Your task to perform on an android device: Open the calendar and show me this week's events Image 0: 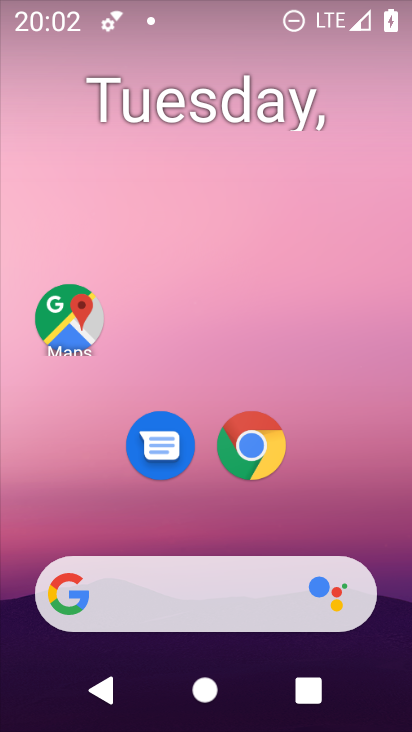
Step 0: drag from (227, 524) to (176, 9)
Your task to perform on an android device: Open the calendar and show me this week's events Image 1: 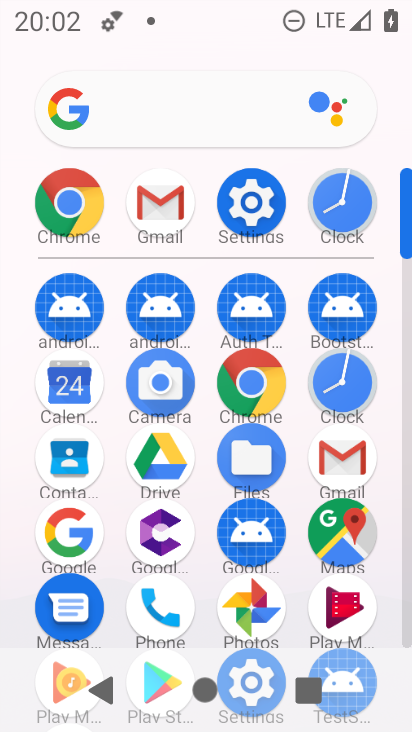
Step 1: click (64, 399)
Your task to perform on an android device: Open the calendar and show me this week's events Image 2: 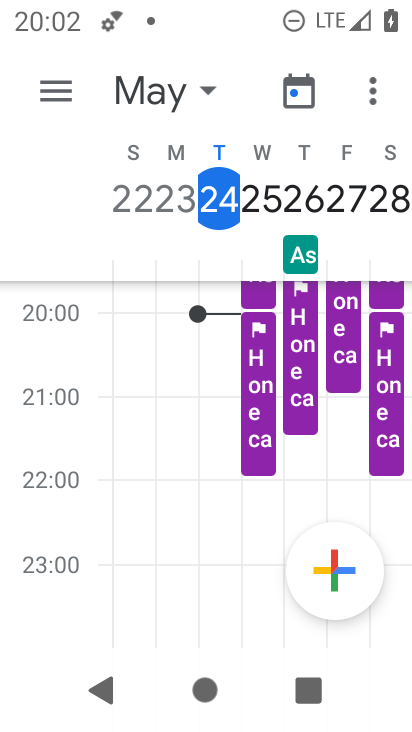
Step 2: task complete